Your task to perform on an android device: What's the weather today? Image 0: 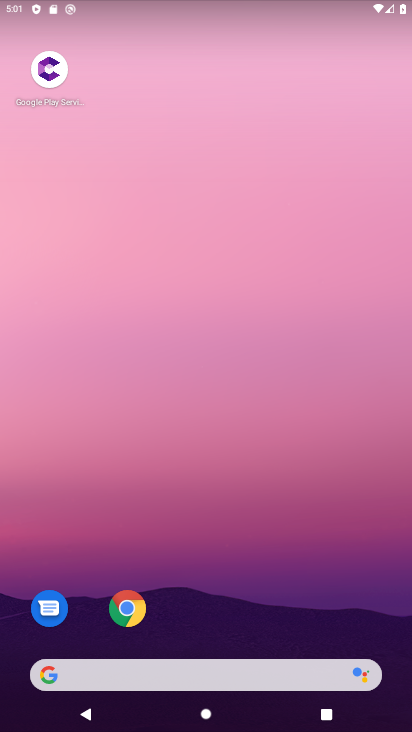
Step 0: drag from (197, 563) to (244, 125)
Your task to perform on an android device: What's the weather today? Image 1: 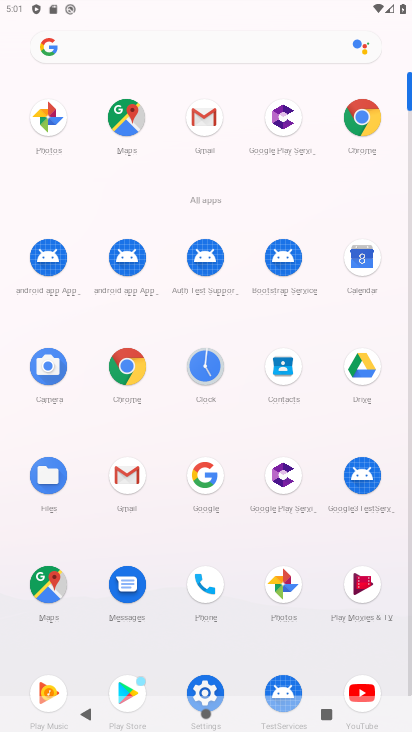
Step 1: click (205, 482)
Your task to perform on an android device: What's the weather today? Image 2: 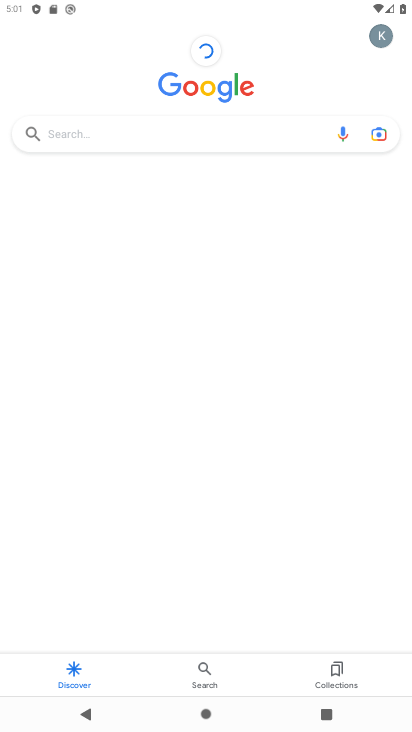
Step 2: click (226, 145)
Your task to perform on an android device: What's the weather today? Image 3: 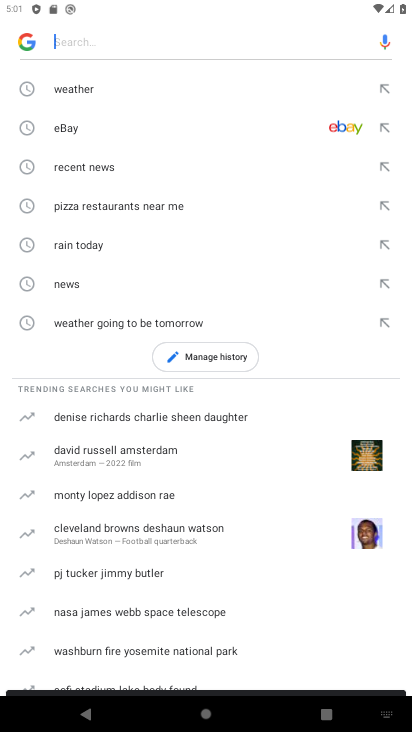
Step 3: click (83, 87)
Your task to perform on an android device: What's the weather today? Image 4: 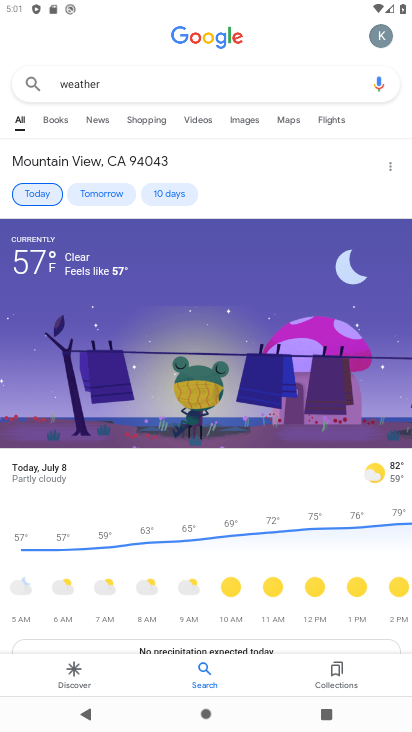
Step 4: task complete